Your task to perform on an android device: turn pop-ups off in chrome Image 0: 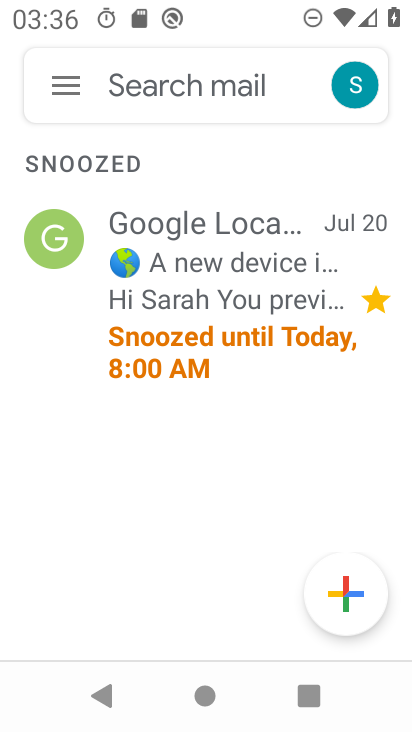
Step 0: press home button
Your task to perform on an android device: turn pop-ups off in chrome Image 1: 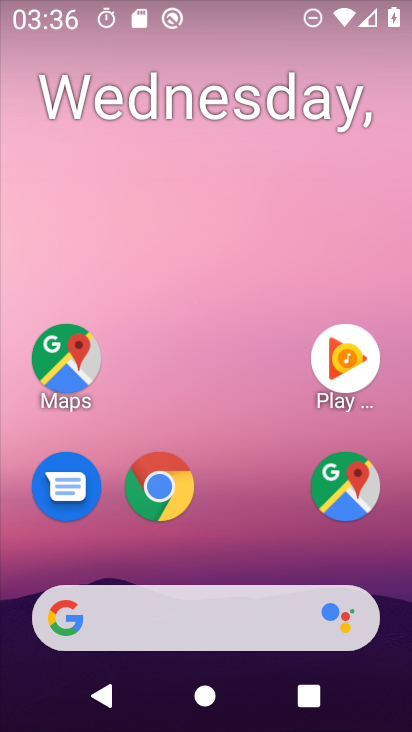
Step 1: drag from (270, 562) to (260, 203)
Your task to perform on an android device: turn pop-ups off in chrome Image 2: 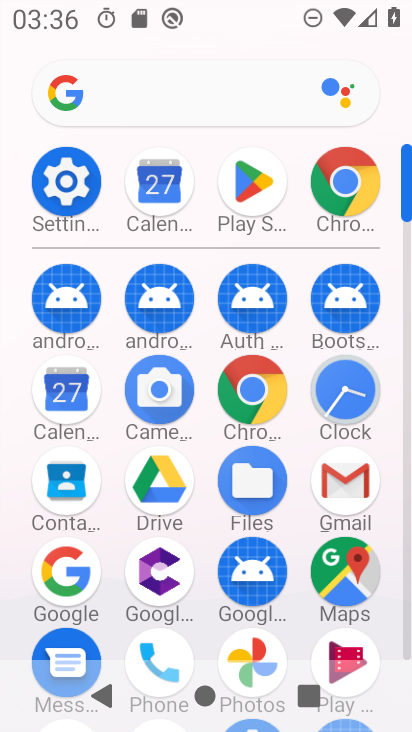
Step 2: click (254, 387)
Your task to perform on an android device: turn pop-ups off in chrome Image 3: 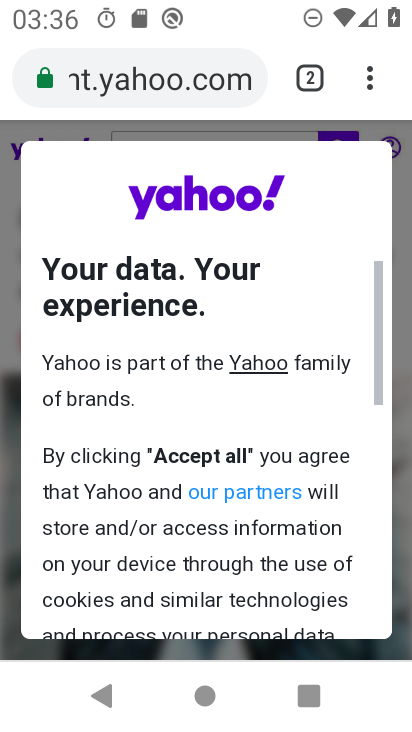
Step 3: click (368, 85)
Your task to perform on an android device: turn pop-ups off in chrome Image 4: 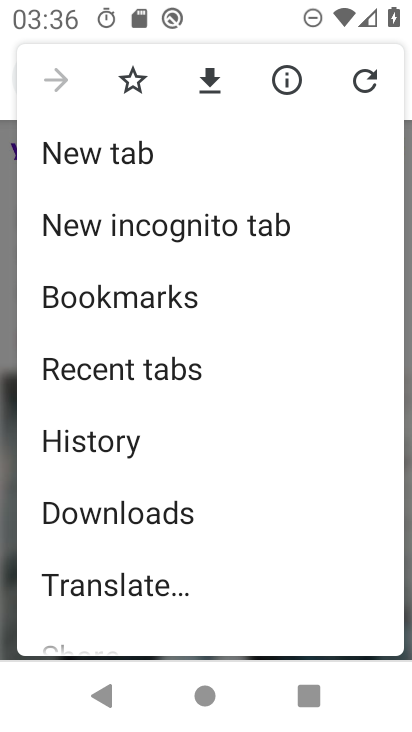
Step 4: drag from (326, 483) to (326, 398)
Your task to perform on an android device: turn pop-ups off in chrome Image 5: 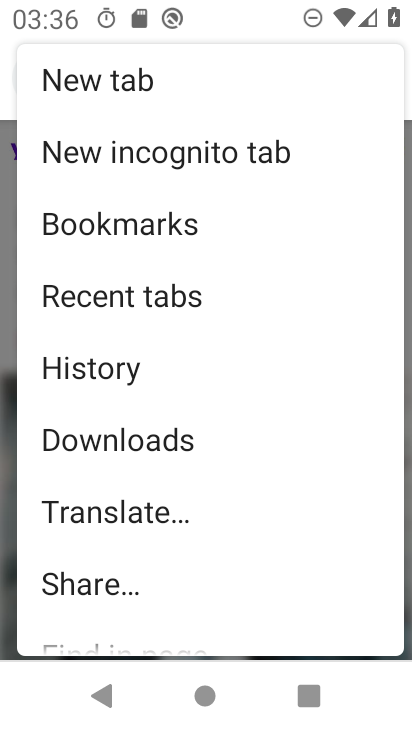
Step 5: drag from (304, 542) to (306, 432)
Your task to perform on an android device: turn pop-ups off in chrome Image 6: 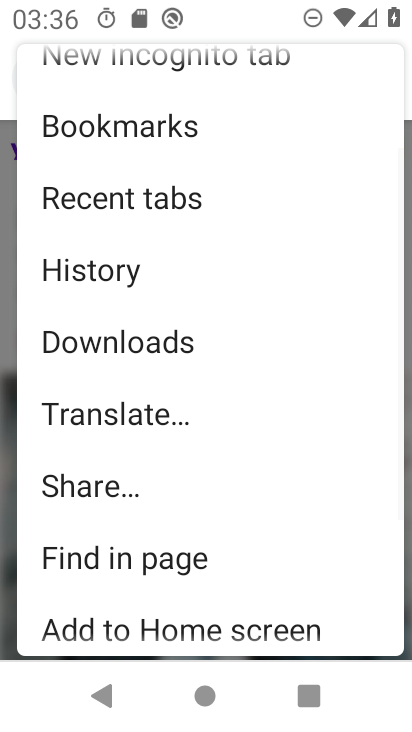
Step 6: drag from (304, 545) to (308, 433)
Your task to perform on an android device: turn pop-ups off in chrome Image 7: 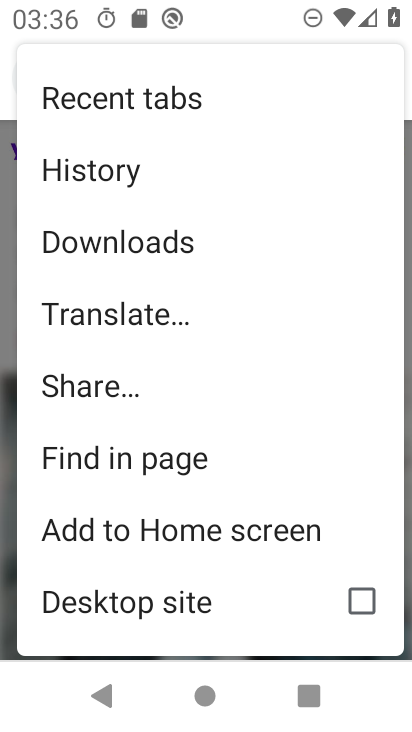
Step 7: drag from (288, 569) to (286, 411)
Your task to perform on an android device: turn pop-ups off in chrome Image 8: 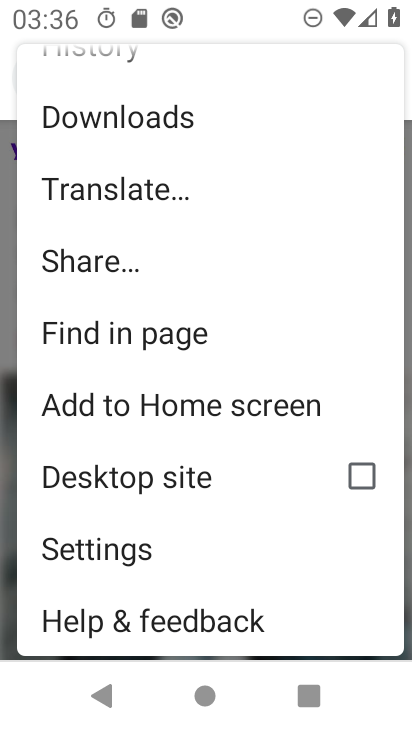
Step 8: click (149, 544)
Your task to perform on an android device: turn pop-ups off in chrome Image 9: 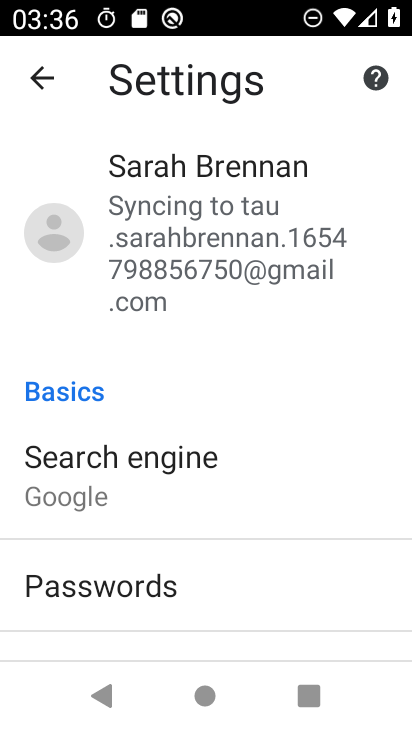
Step 9: drag from (325, 579) to (337, 480)
Your task to perform on an android device: turn pop-ups off in chrome Image 10: 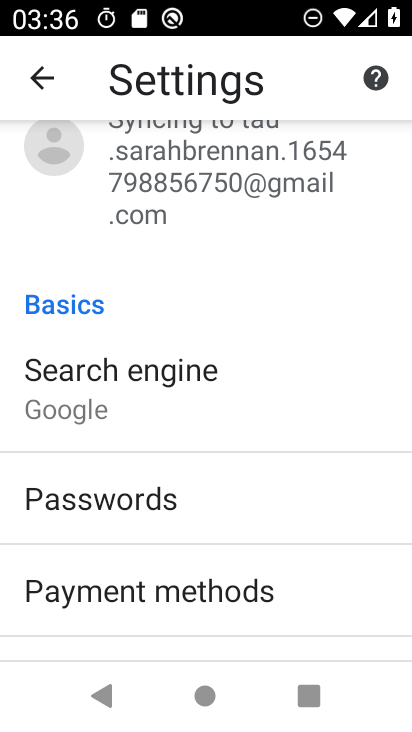
Step 10: drag from (323, 585) to (324, 478)
Your task to perform on an android device: turn pop-ups off in chrome Image 11: 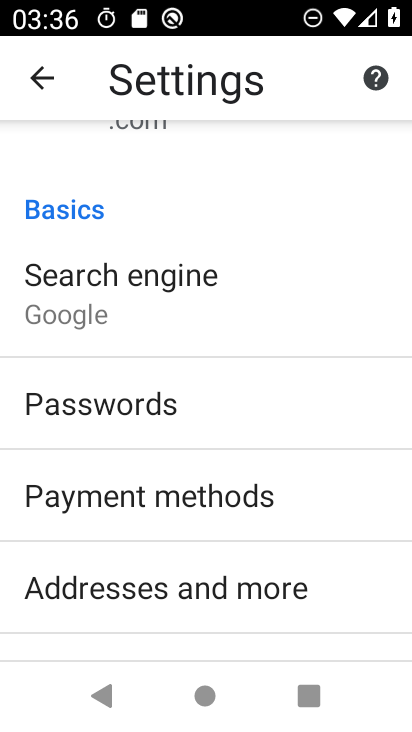
Step 11: drag from (351, 584) to (353, 496)
Your task to perform on an android device: turn pop-ups off in chrome Image 12: 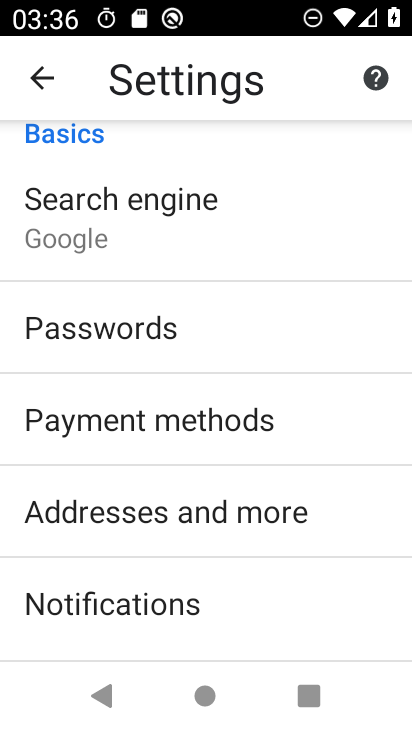
Step 12: drag from (328, 582) to (329, 466)
Your task to perform on an android device: turn pop-ups off in chrome Image 13: 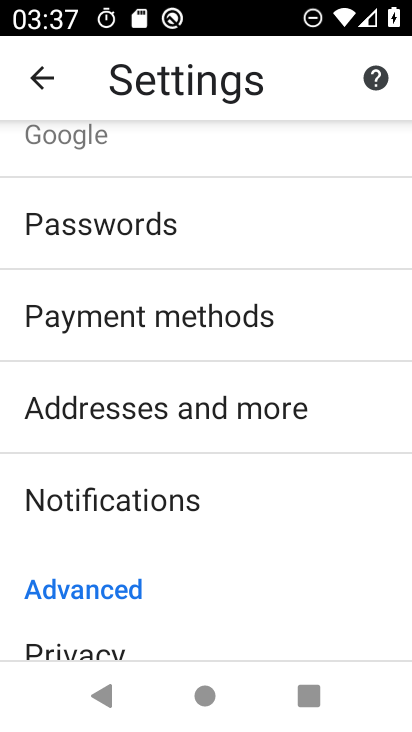
Step 13: drag from (323, 534) to (314, 414)
Your task to perform on an android device: turn pop-ups off in chrome Image 14: 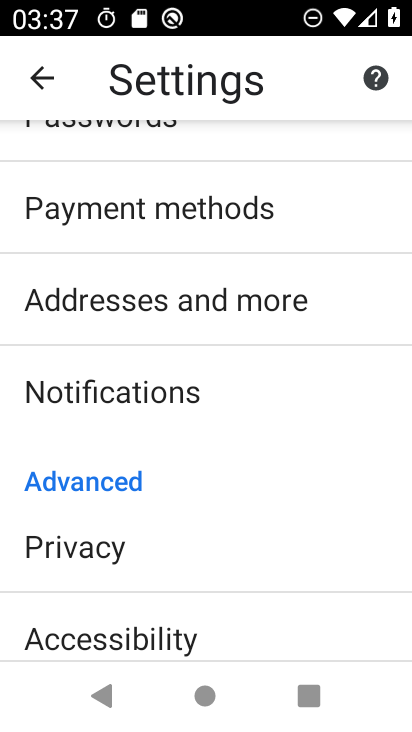
Step 14: drag from (302, 540) to (282, 372)
Your task to perform on an android device: turn pop-ups off in chrome Image 15: 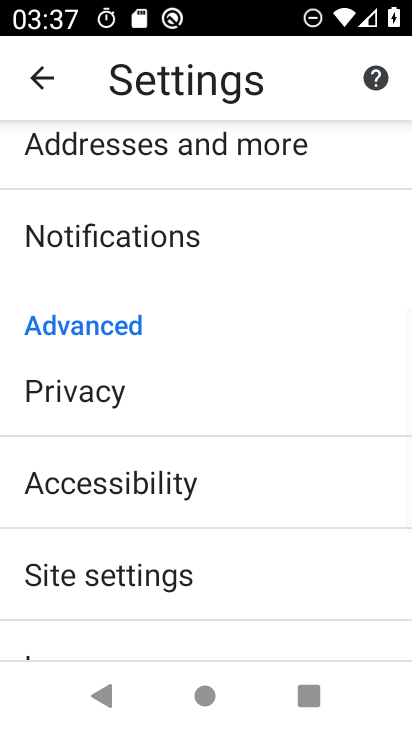
Step 15: click (263, 564)
Your task to perform on an android device: turn pop-ups off in chrome Image 16: 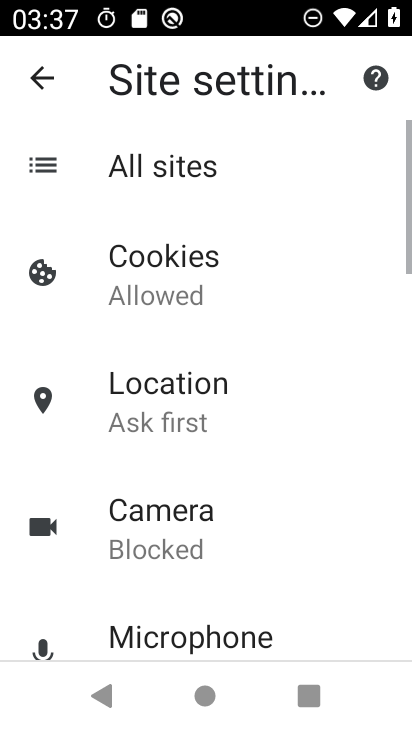
Step 16: drag from (262, 565) to (273, 450)
Your task to perform on an android device: turn pop-ups off in chrome Image 17: 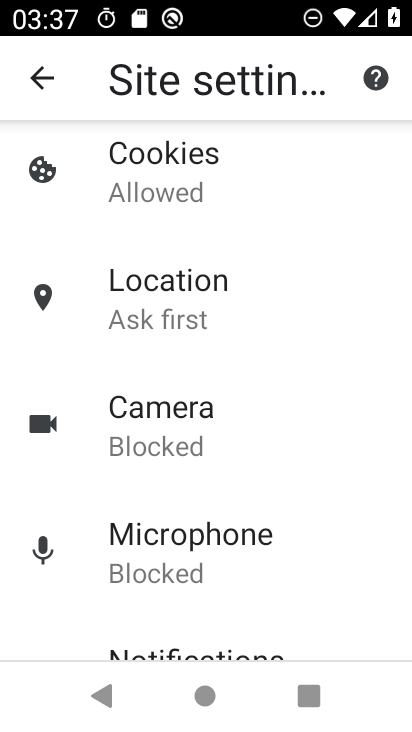
Step 17: drag from (339, 547) to (336, 391)
Your task to perform on an android device: turn pop-ups off in chrome Image 18: 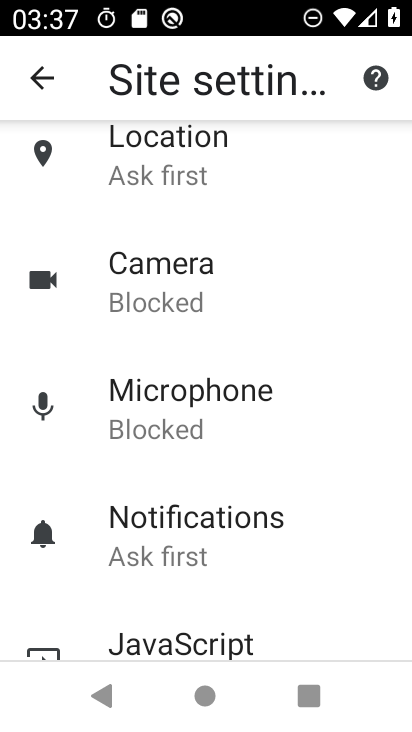
Step 18: drag from (332, 545) to (327, 403)
Your task to perform on an android device: turn pop-ups off in chrome Image 19: 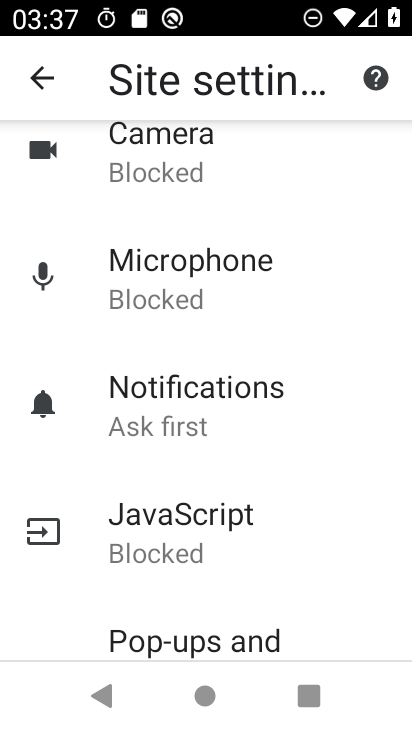
Step 19: drag from (321, 570) to (318, 413)
Your task to perform on an android device: turn pop-ups off in chrome Image 20: 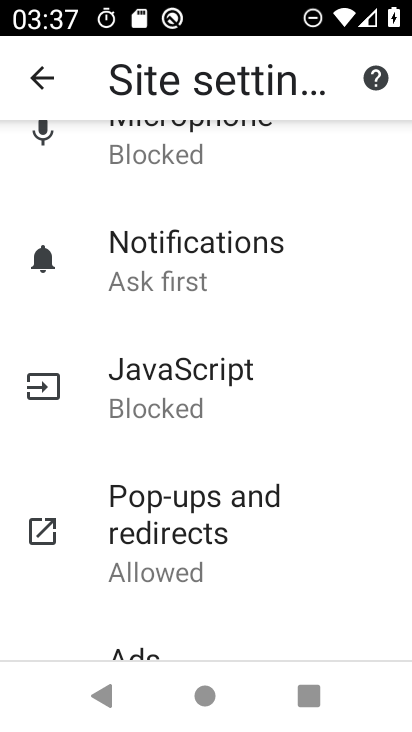
Step 20: click (284, 538)
Your task to perform on an android device: turn pop-ups off in chrome Image 21: 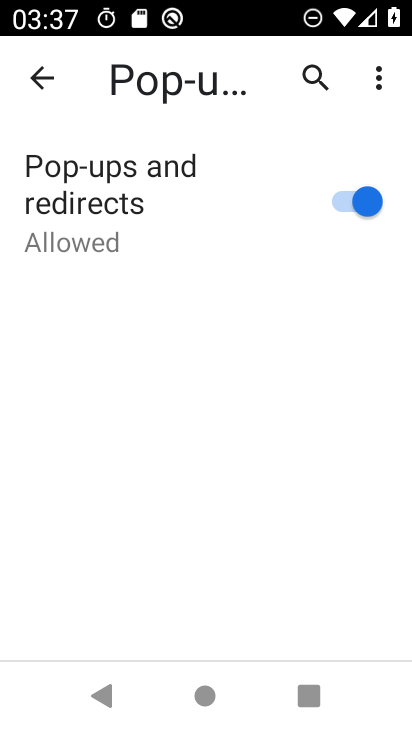
Step 21: click (364, 204)
Your task to perform on an android device: turn pop-ups off in chrome Image 22: 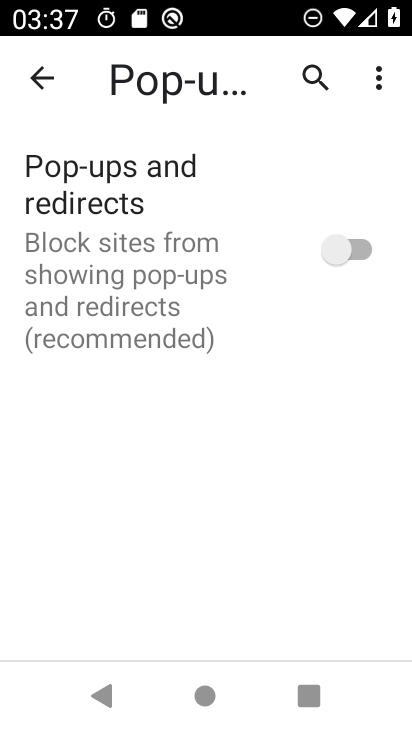
Step 22: task complete